Your task to perform on an android device: turn on sleep mode Image 0: 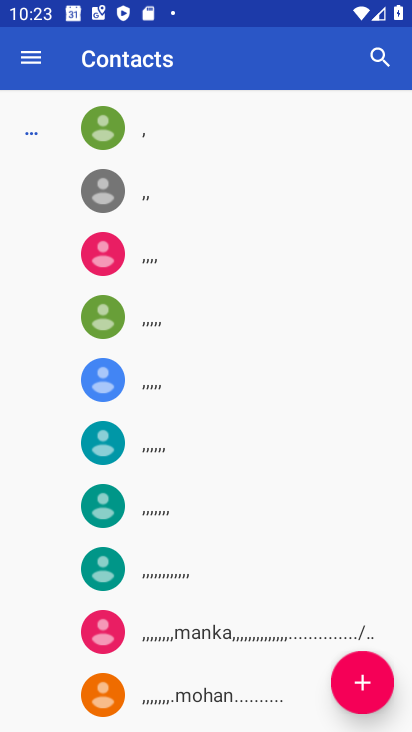
Step 0: press home button
Your task to perform on an android device: turn on sleep mode Image 1: 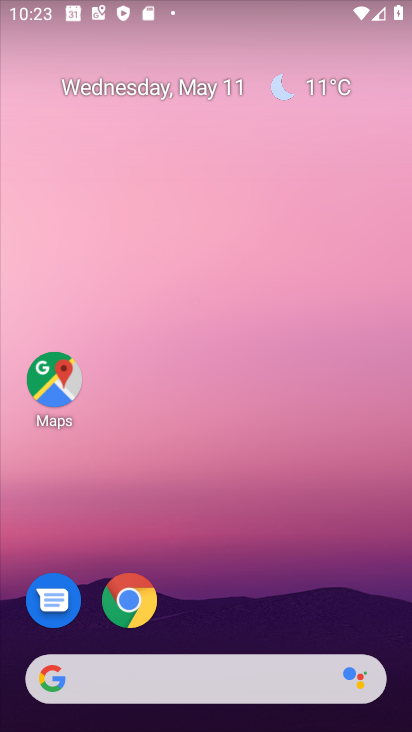
Step 1: drag from (248, 538) to (302, 170)
Your task to perform on an android device: turn on sleep mode Image 2: 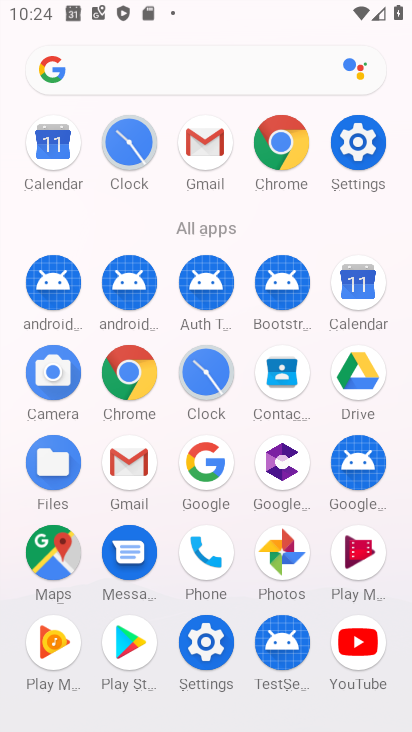
Step 2: click (352, 162)
Your task to perform on an android device: turn on sleep mode Image 3: 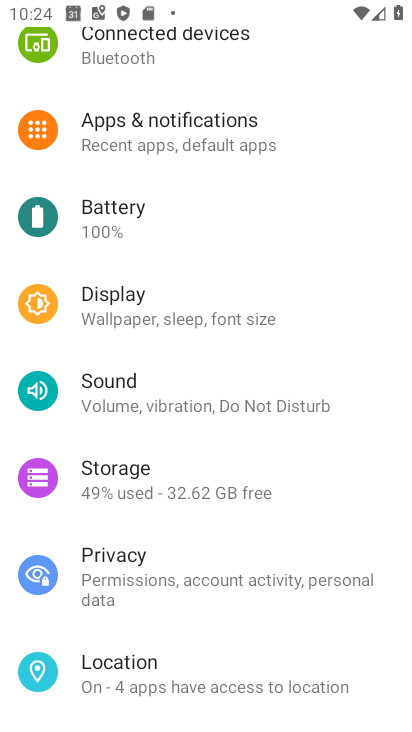
Step 3: click (194, 320)
Your task to perform on an android device: turn on sleep mode Image 4: 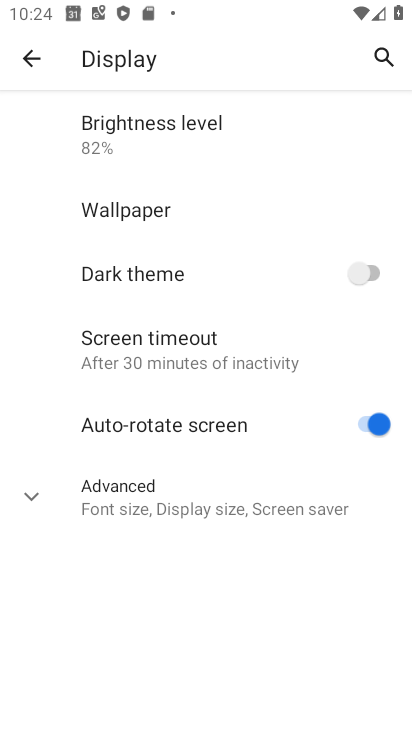
Step 4: click (139, 358)
Your task to perform on an android device: turn on sleep mode Image 5: 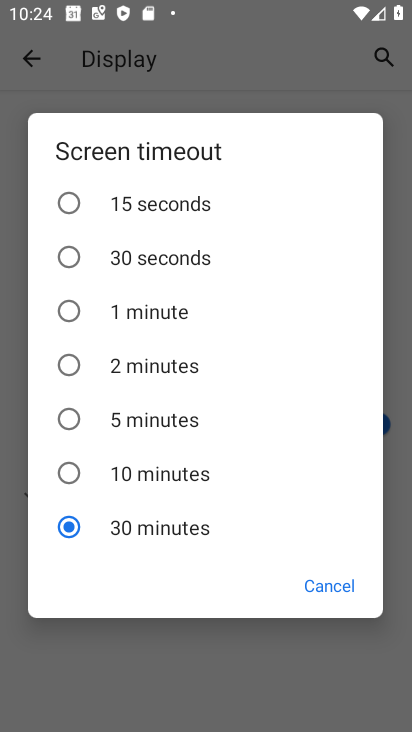
Step 5: click (325, 587)
Your task to perform on an android device: turn on sleep mode Image 6: 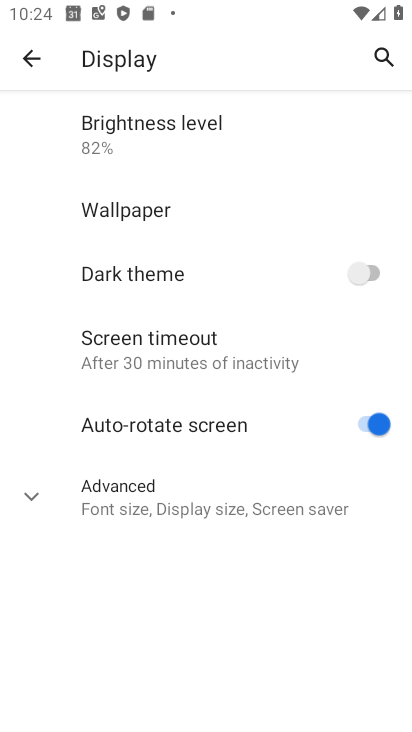
Step 6: click (53, 54)
Your task to perform on an android device: turn on sleep mode Image 7: 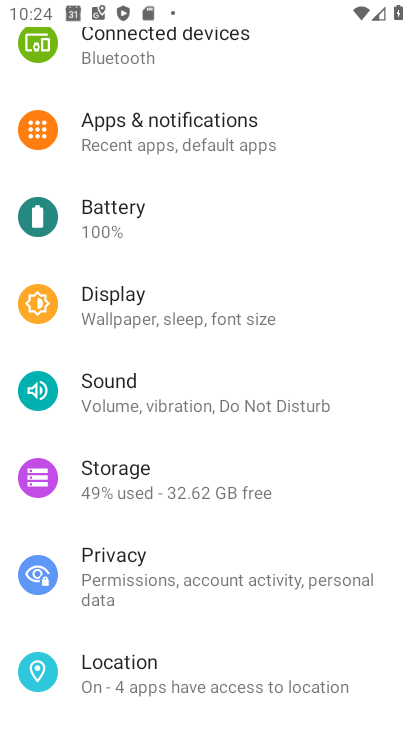
Step 7: drag from (296, 440) to (298, 137)
Your task to perform on an android device: turn on sleep mode Image 8: 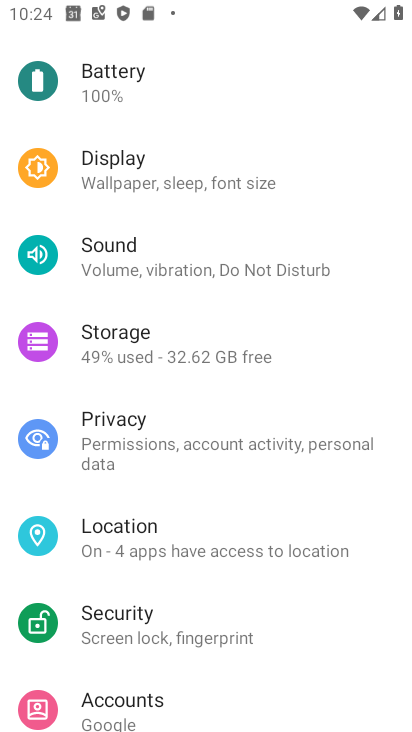
Step 8: drag from (228, 540) to (309, 205)
Your task to perform on an android device: turn on sleep mode Image 9: 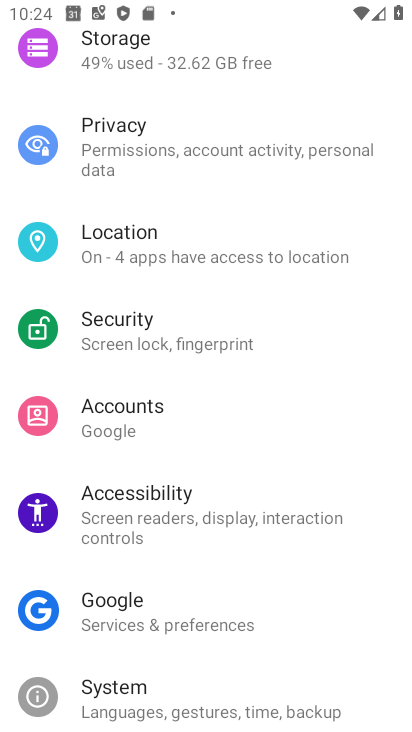
Step 9: drag from (284, 620) to (307, 237)
Your task to perform on an android device: turn on sleep mode Image 10: 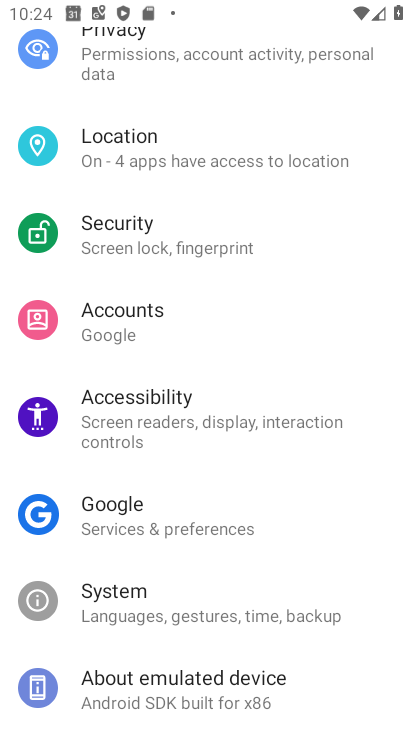
Step 10: drag from (285, 331) to (274, 653)
Your task to perform on an android device: turn on sleep mode Image 11: 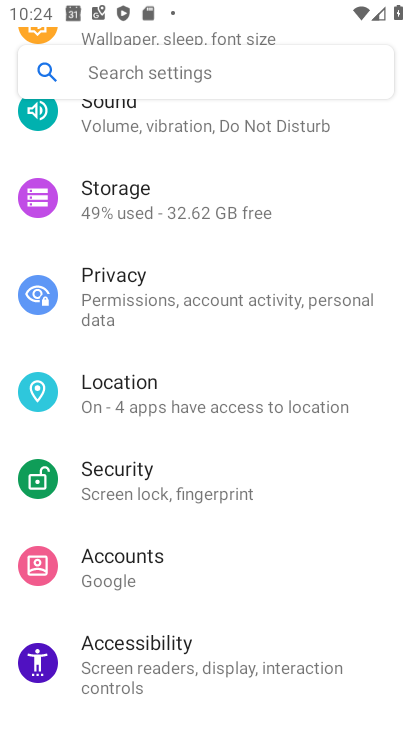
Step 11: drag from (287, 231) to (275, 662)
Your task to perform on an android device: turn on sleep mode Image 12: 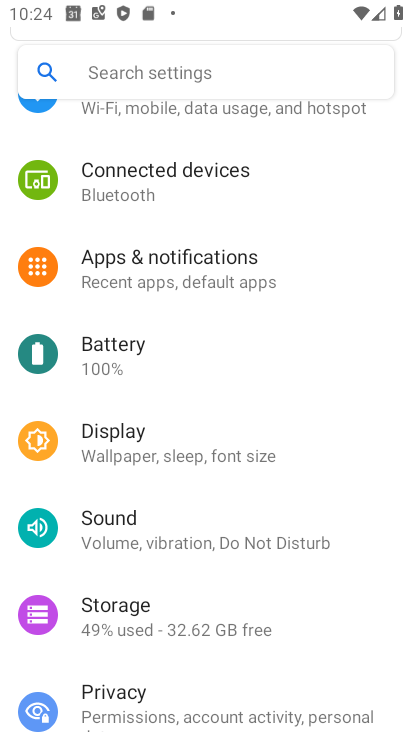
Step 12: drag from (341, 271) to (309, 606)
Your task to perform on an android device: turn on sleep mode Image 13: 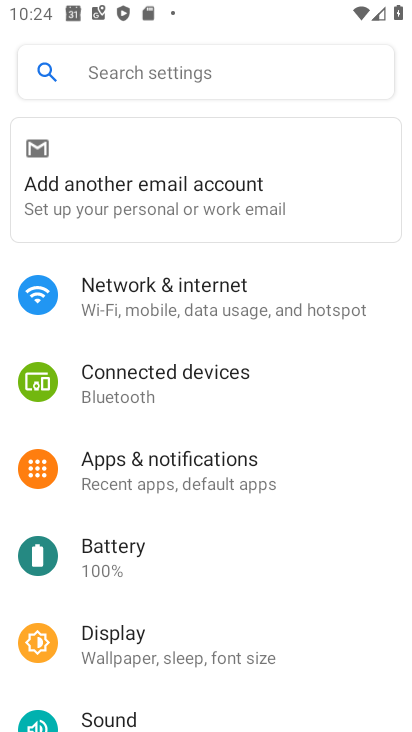
Step 13: drag from (311, 648) to (298, 286)
Your task to perform on an android device: turn on sleep mode Image 14: 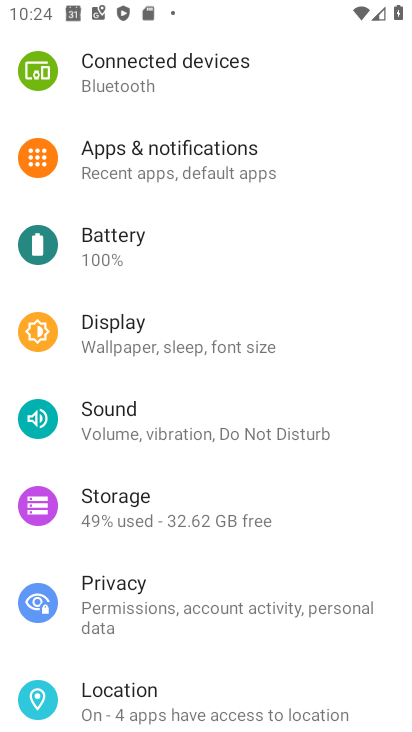
Step 14: drag from (269, 184) to (278, 603)
Your task to perform on an android device: turn on sleep mode Image 15: 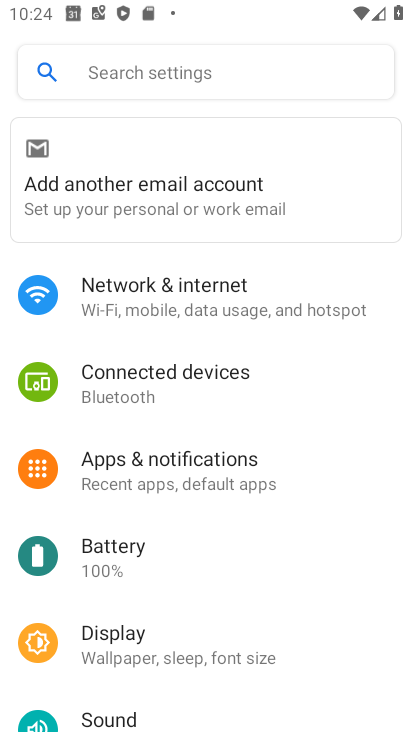
Step 15: click (187, 65)
Your task to perform on an android device: turn on sleep mode Image 16: 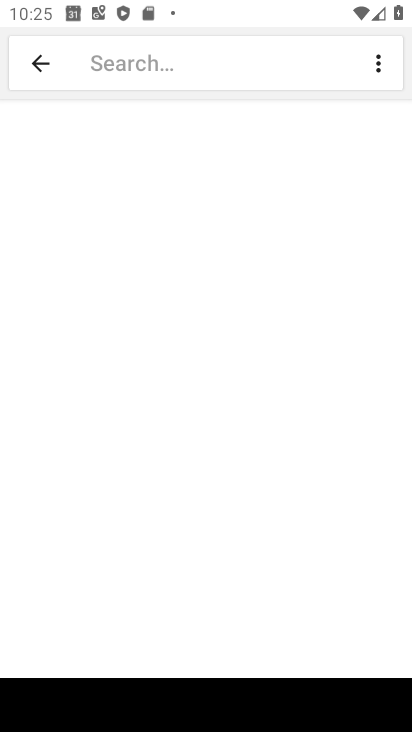
Step 16: type "sleep mode"
Your task to perform on an android device: turn on sleep mode Image 17: 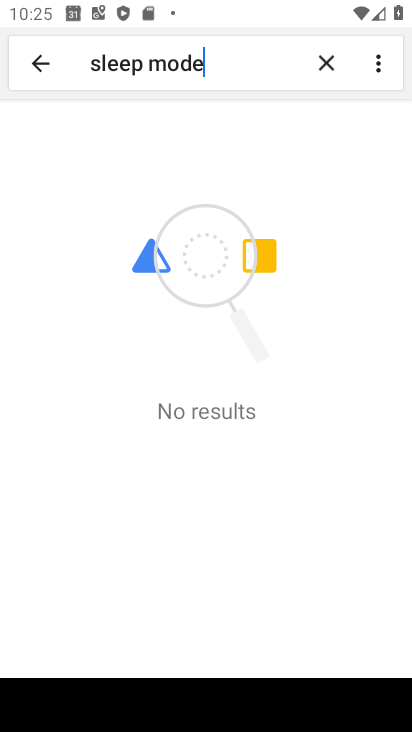
Step 17: press back button
Your task to perform on an android device: turn on sleep mode Image 18: 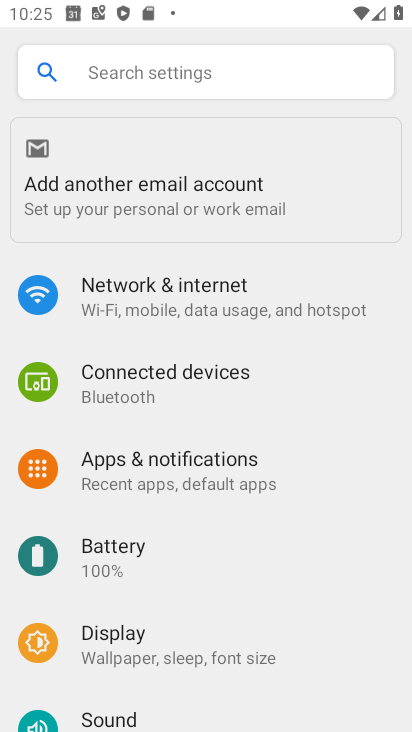
Step 18: drag from (270, 606) to (284, 254)
Your task to perform on an android device: turn on sleep mode Image 19: 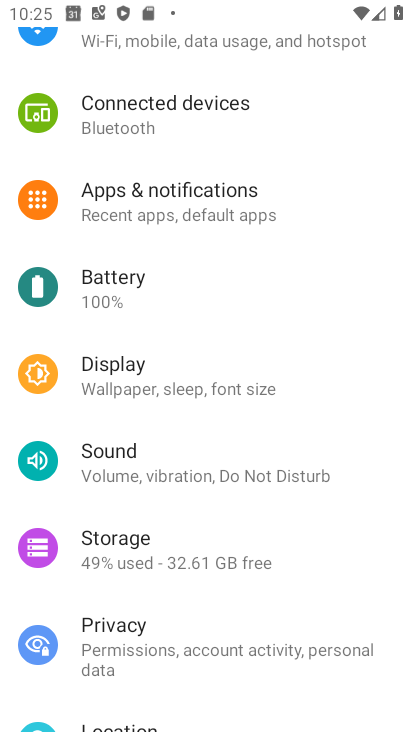
Step 19: press home button
Your task to perform on an android device: turn on sleep mode Image 20: 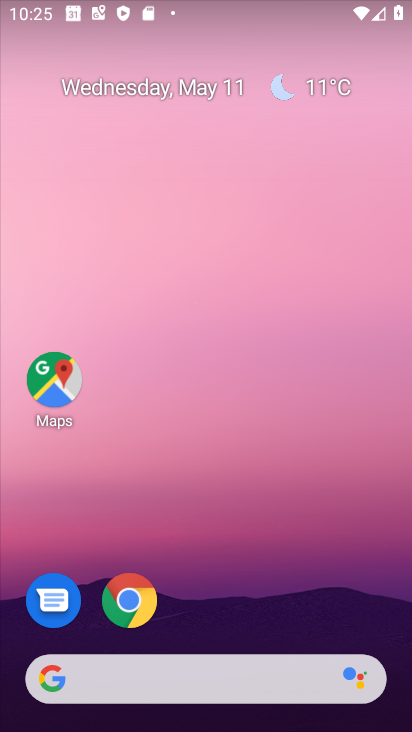
Step 20: drag from (259, 592) to (204, 184)
Your task to perform on an android device: turn on sleep mode Image 21: 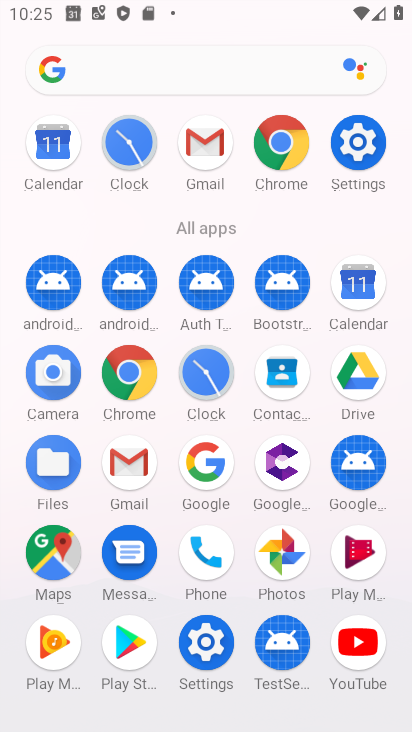
Step 21: click (350, 156)
Your task to perform on an android device: turn on sleep mode Image 22: 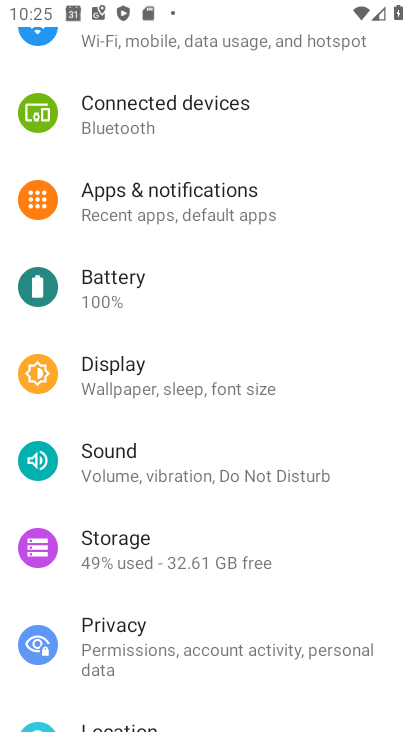
Step 22: click (198, 376)
Your task to perform on an android device: turn on sleep mode Image 23: 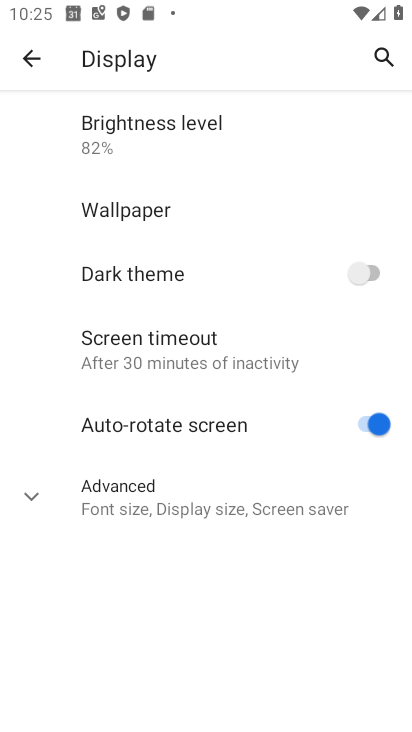
Step 23: click (143, 501)
Your task to perform on an android device: turn on sleep mode Image 24: 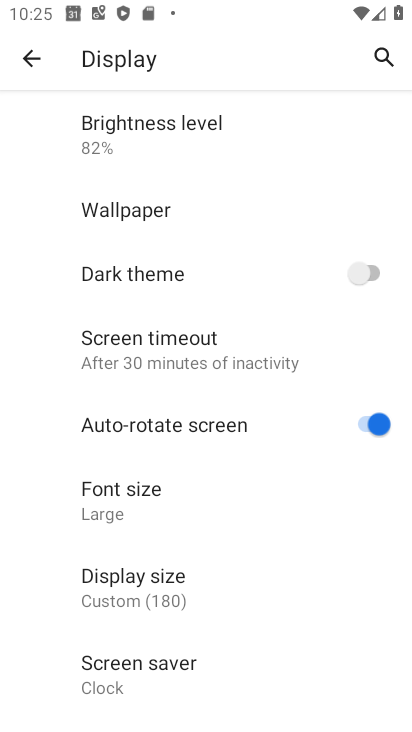
Step 24: drag from (265, 624) to (233, 306)
Your task to perform on an android device: turn on sleep mode Image 25: 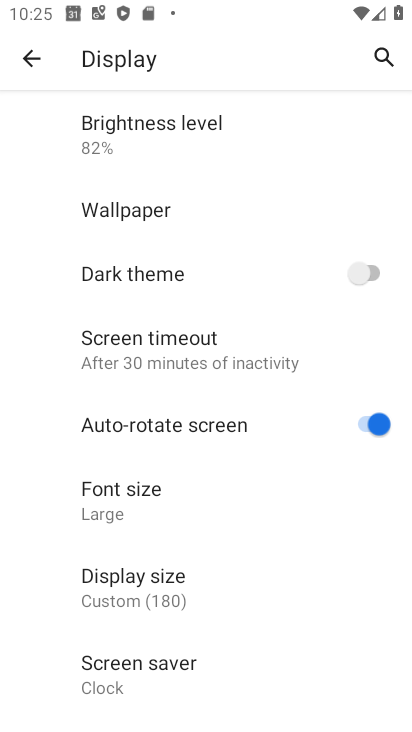
Step 25: drag from (246, 506) to (272, 659)
Your task to perform on an android device: turn on sleep mode Image 26: 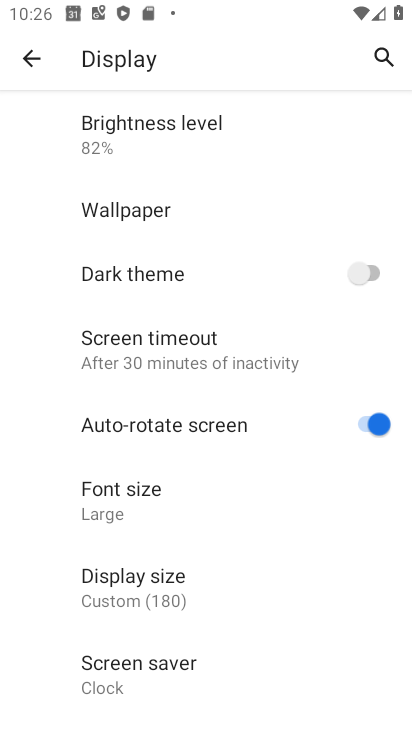
Step 26: drag from (206, 491) to (230, 626)
Your task to perform on an android device: turn on sleep mode Image 27: 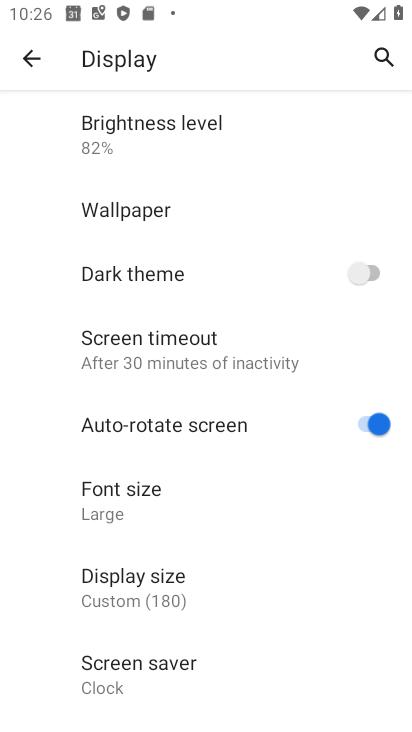
Step 27: press home button
Your task to perform on an android device: turn on sleep mode Image 28: 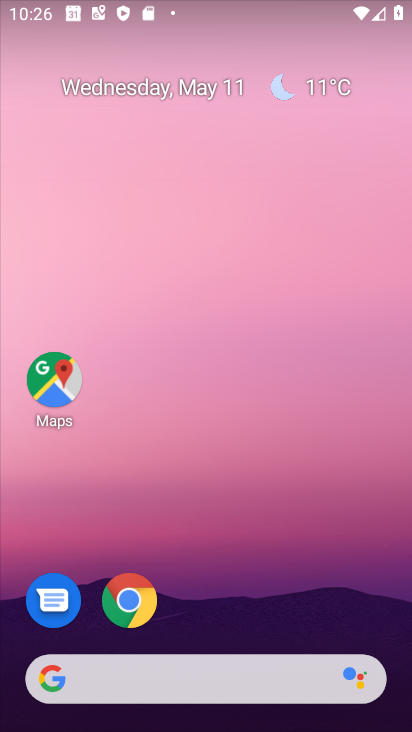
Step 28: drag from (251, 535) to (196, 251)
Your task to perform on an android device: turn on sleep mode Image 29: 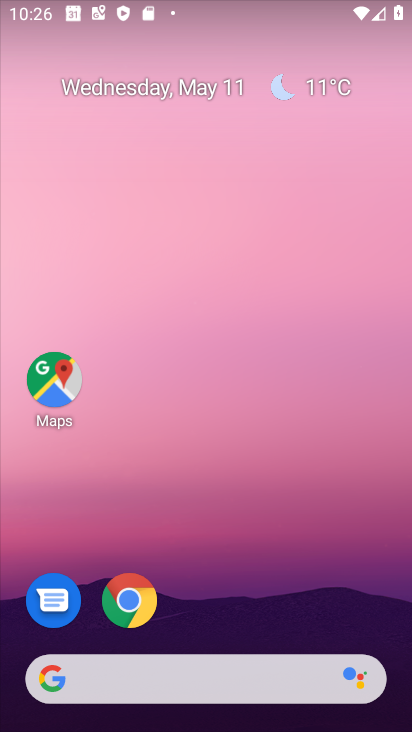
Step 29: drag from (238, 514) to (253, 248)
Your task to perform on an android device: turn on sleep mode Image 30: 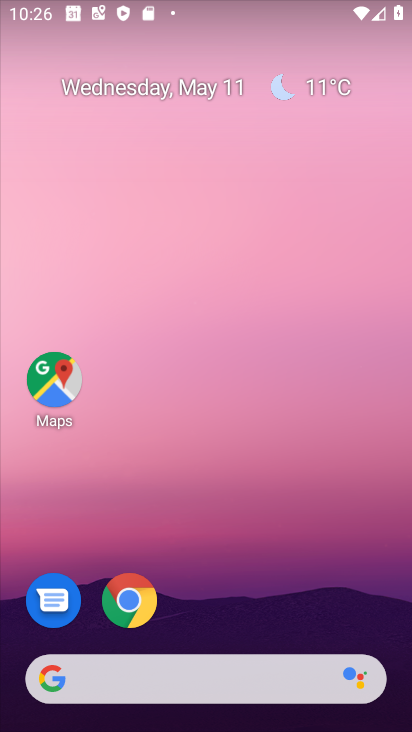
Step 30: drag from (259, 564) to (265, 167)
Your task to perform on an android device: turn on sleep mode Image 31: 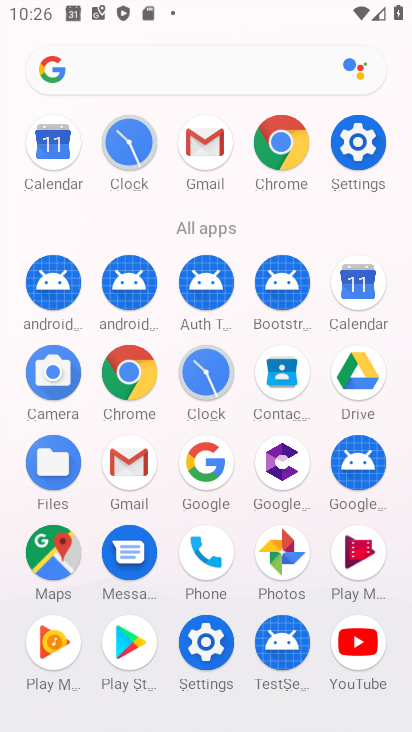
Step 31: drag from (245, 658) to (242, 255)
Your task to perform on an android device: turn on sleep mode Image 32: 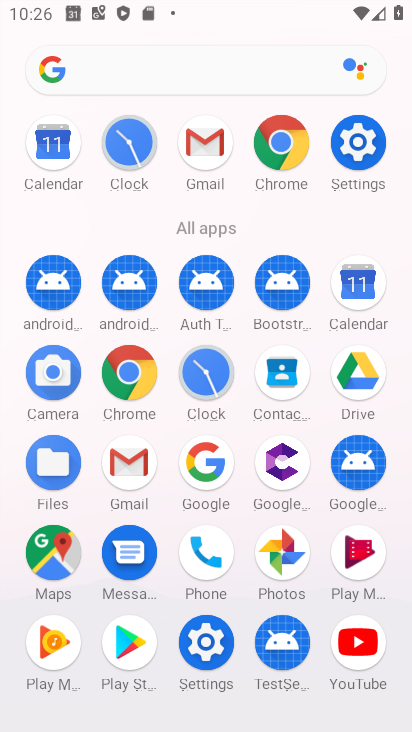
Step 32: click (346, 152)
Your task to perform on an android device: turn on sleep mode Image 33: 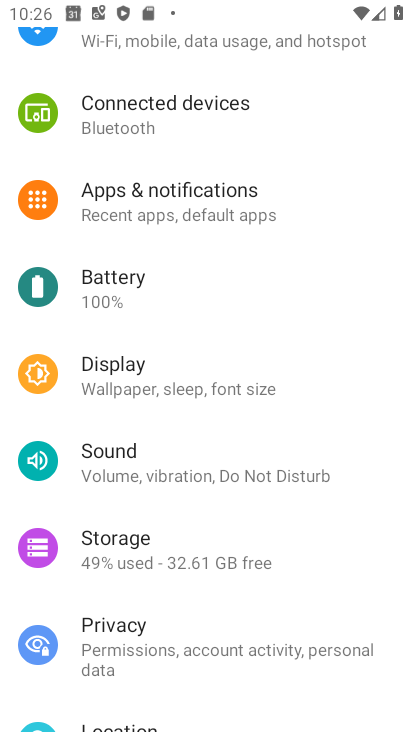
Step 33: click (214, 385)
Your task to perform on an android device: turn on sleep mode Image 34: 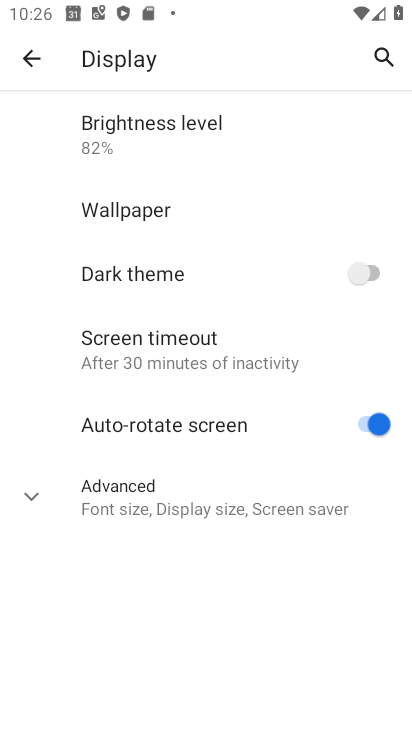
Step 34: click (134, 495)
Your task to perform on an android device: turn on sleep mode Image 35: 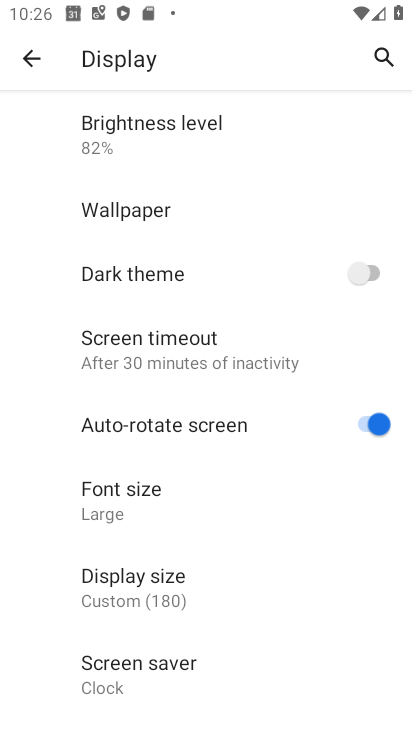
Step 35: task complete